Your task to perform on an android device: stop showing notifications on the lock screen Image 0: 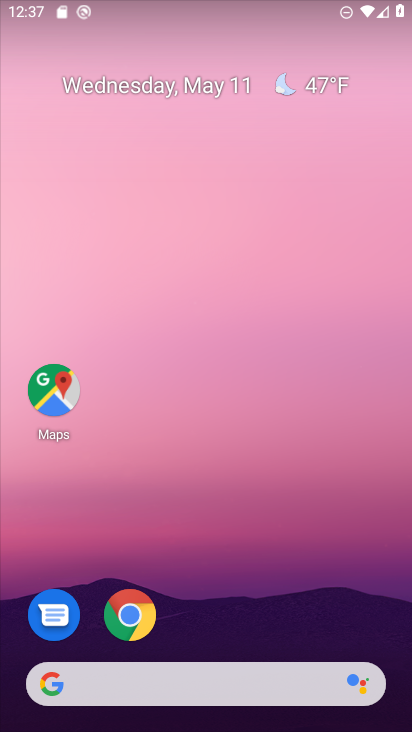
Step 0: drag from (229, 582) to (156, 97)
Your task to perform on an android device: stop showing notifications on the lock screen Image 1: 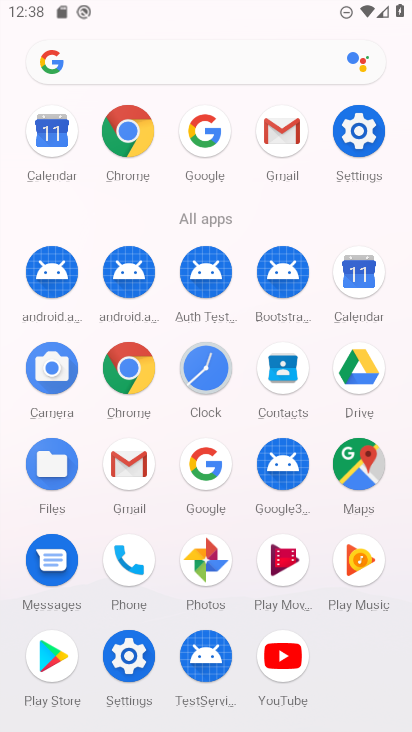
Step 1: click (373, 133)
Your task to perform on an android device: stop showing notifications on the lock screen Image 2: 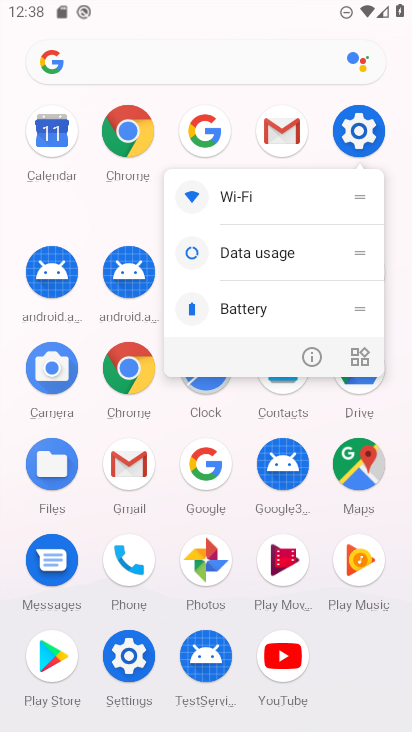
Step 2: click (366, 140)
Your task to perform on an android device: stop showing notifications on the lock screen Image 3: 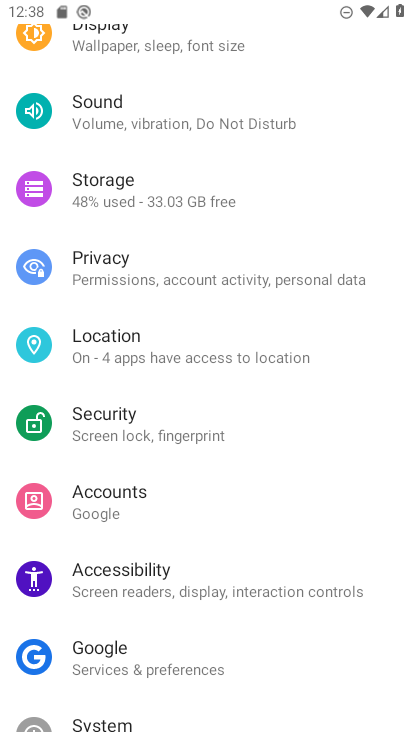
Step 3: drag from (165, 151) to (236, 544)
Your task to perform on an android device: stop showing notifications on the lock screen Image 4: 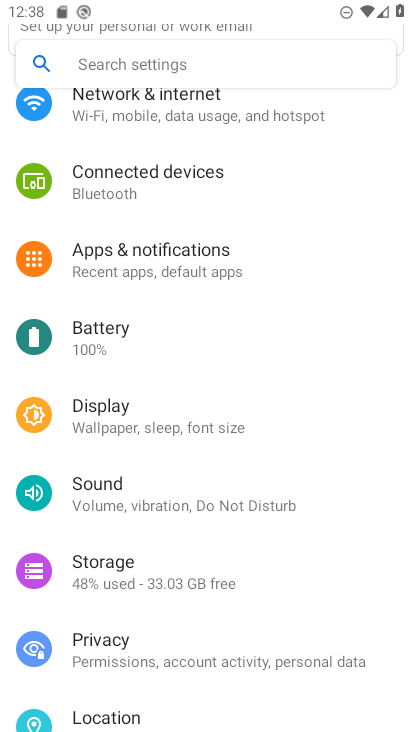
Step 4: drag from (193, 226) to (267, 549)
Your task to perform on an android device: stop showing notifications on the lock screen Image 5: 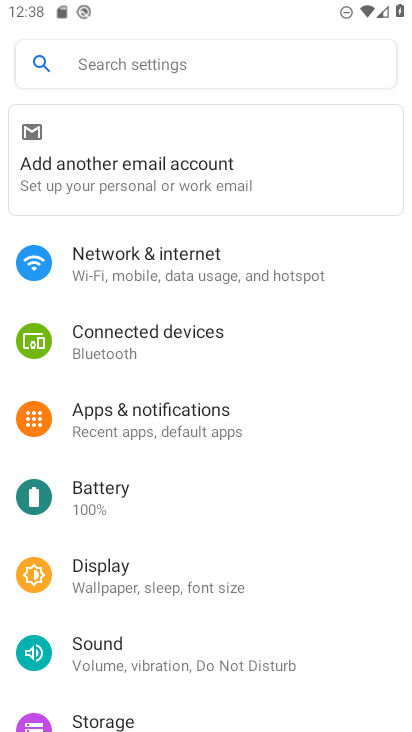
Step 5: drag from (213, 648) to (186, 455)
Your task to perform on an android device: stop showing notifications on the lock screen Image 6: 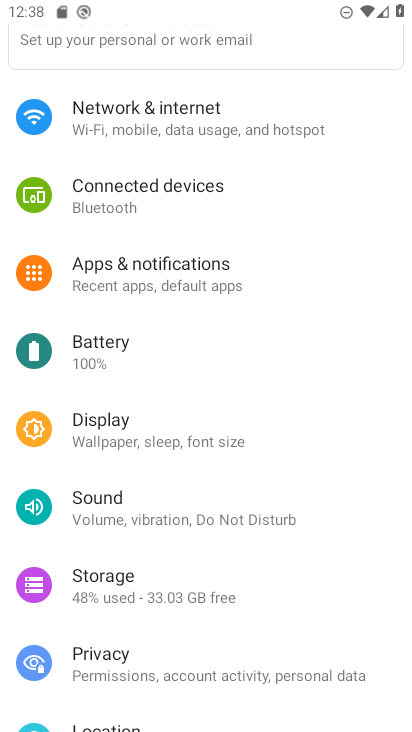
Step 6: click (135, 304)
Your task to perform on an android device: stop showing notifications on the lock screen Image 7: 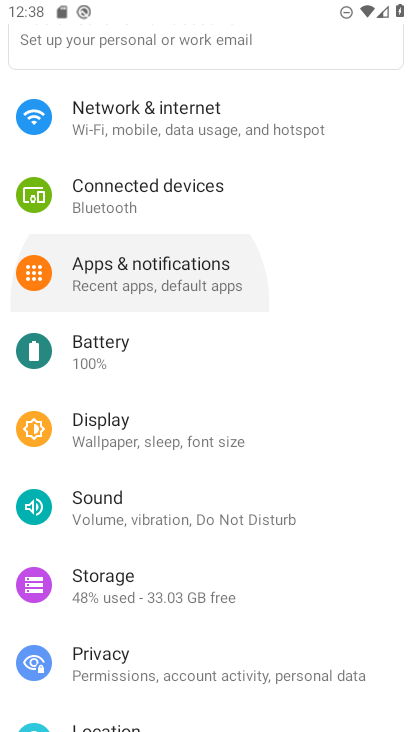
Step 7: click (130, 284)
Your task to perform on an android device: stop showing notifications on the lock screen Image 8: 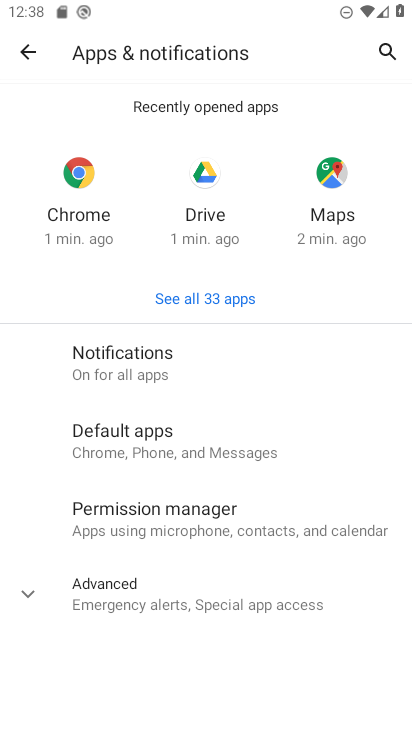
Step 8: drag from (167, 583) to (146, 369)
Your task to perform on an android device: stop showing notifications on the lock screen Image 9: 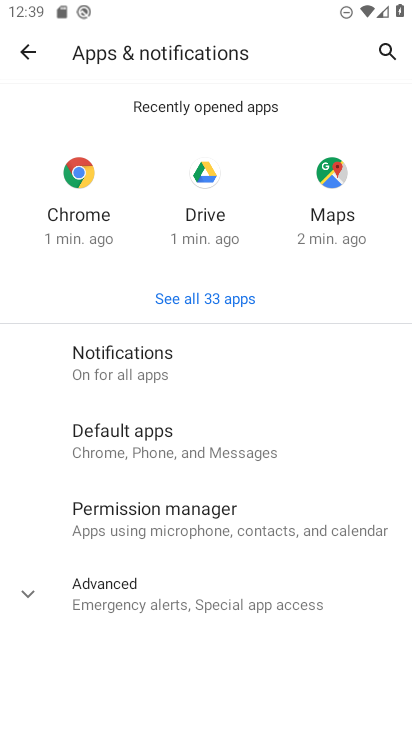
Step 9: click (138, 359)
Your task to perform on an android device: stop showing notifications on the lock screen Image 10: 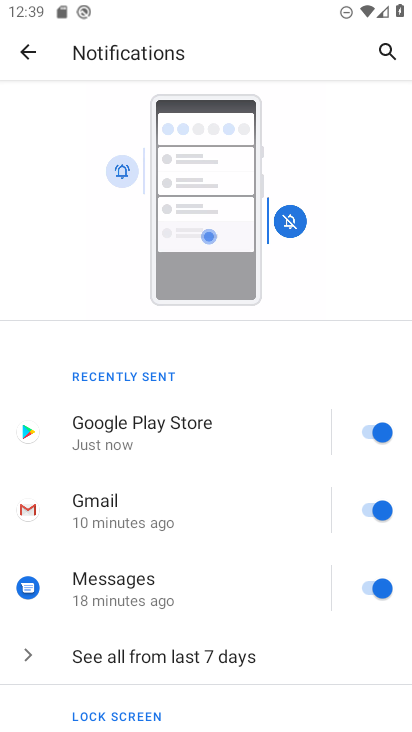
Step 10: drag from (226, 628) to (131, 188)
Your task to perform on an android device: stop showing notifications on the lock screen Image 11: 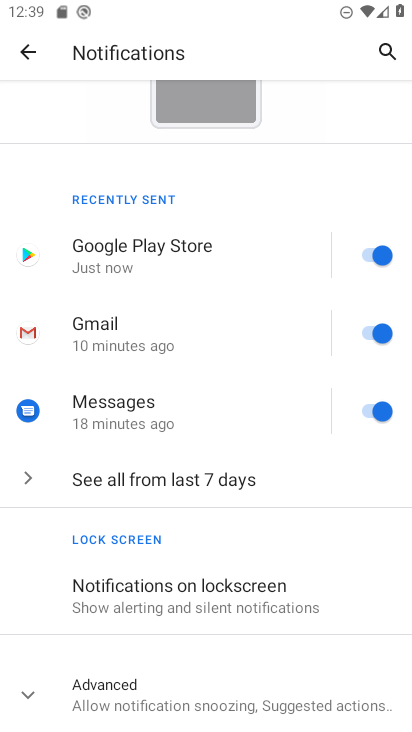
Step 11: click (129, 588)
Your task to perform on an android device: stop showing notifications on the lock screen Image 12: 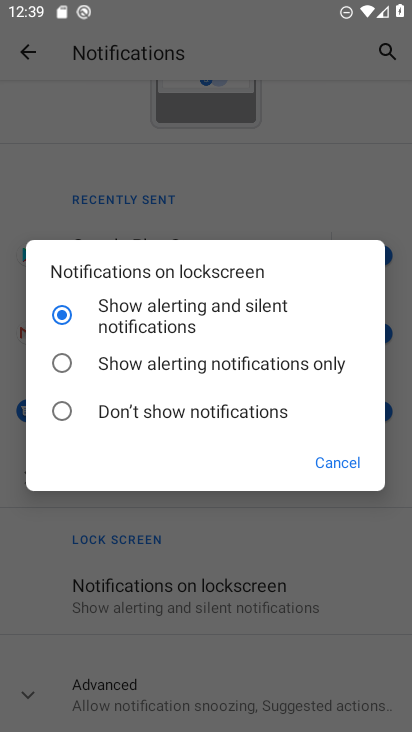
Step 12: click (78, 408)
Your task to perform on an android device: stop showing notifications on the lock screen Image 13: 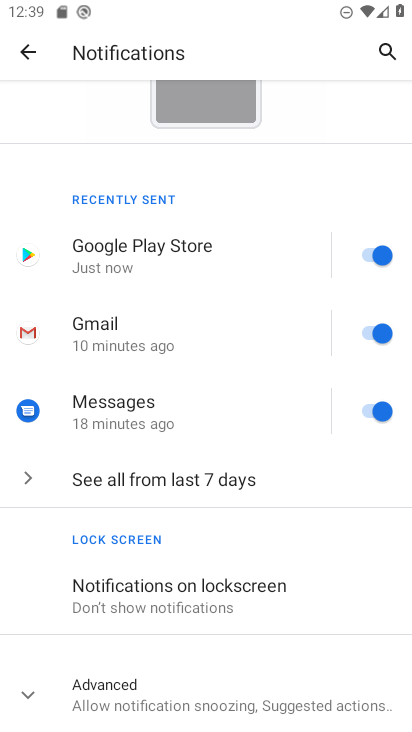
Step 13: task complete